Your task to perform on an android device: Open Google Chrome Image 0: 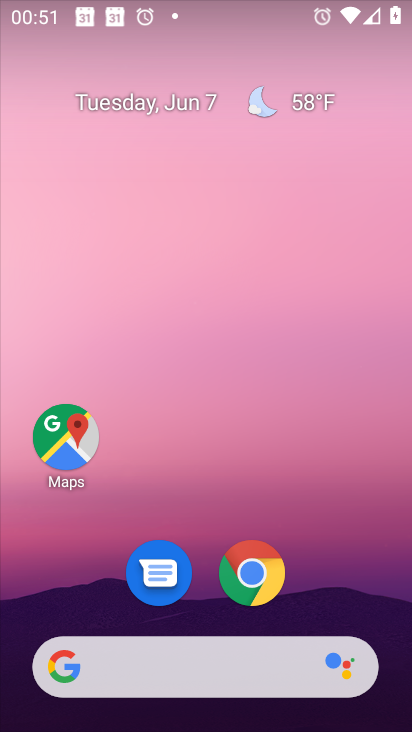
Step 0: press home button
Your task to perform on an android device: Open Google Chrome Image 1: 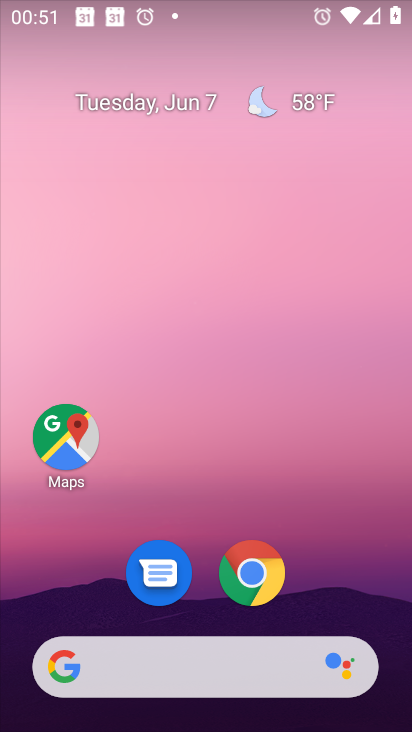
Step 1: click (238, 556)
Your task to perform on an android device: Open Google Chrome Image 2: 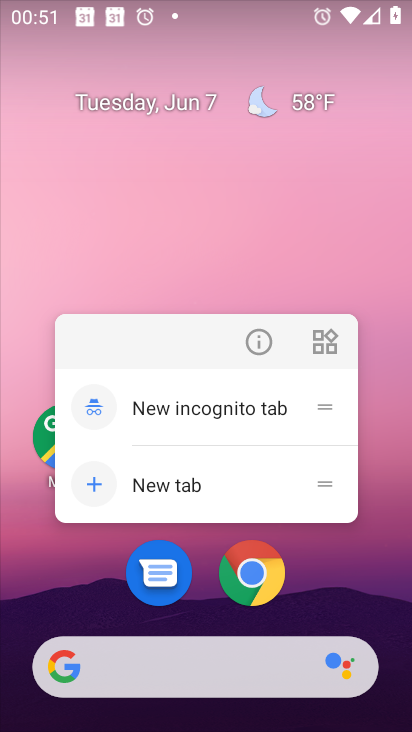
Step 2: click (255, 560)
Your task to perform on an android device: Open Google Chrome Image 3: 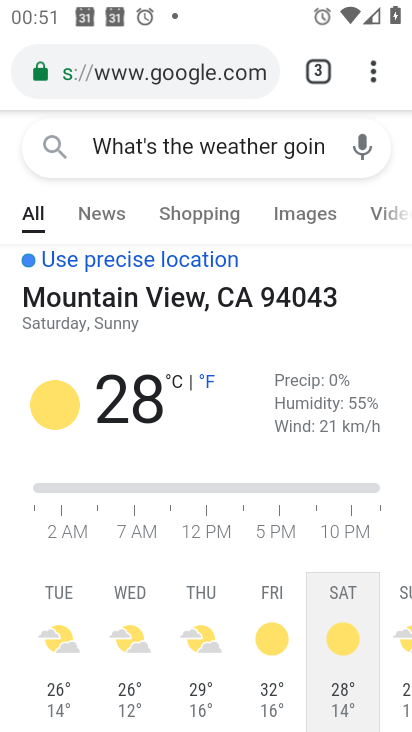
Step 3: task complete